Your task to perform on an android device: change the clock display to digital Image 0: 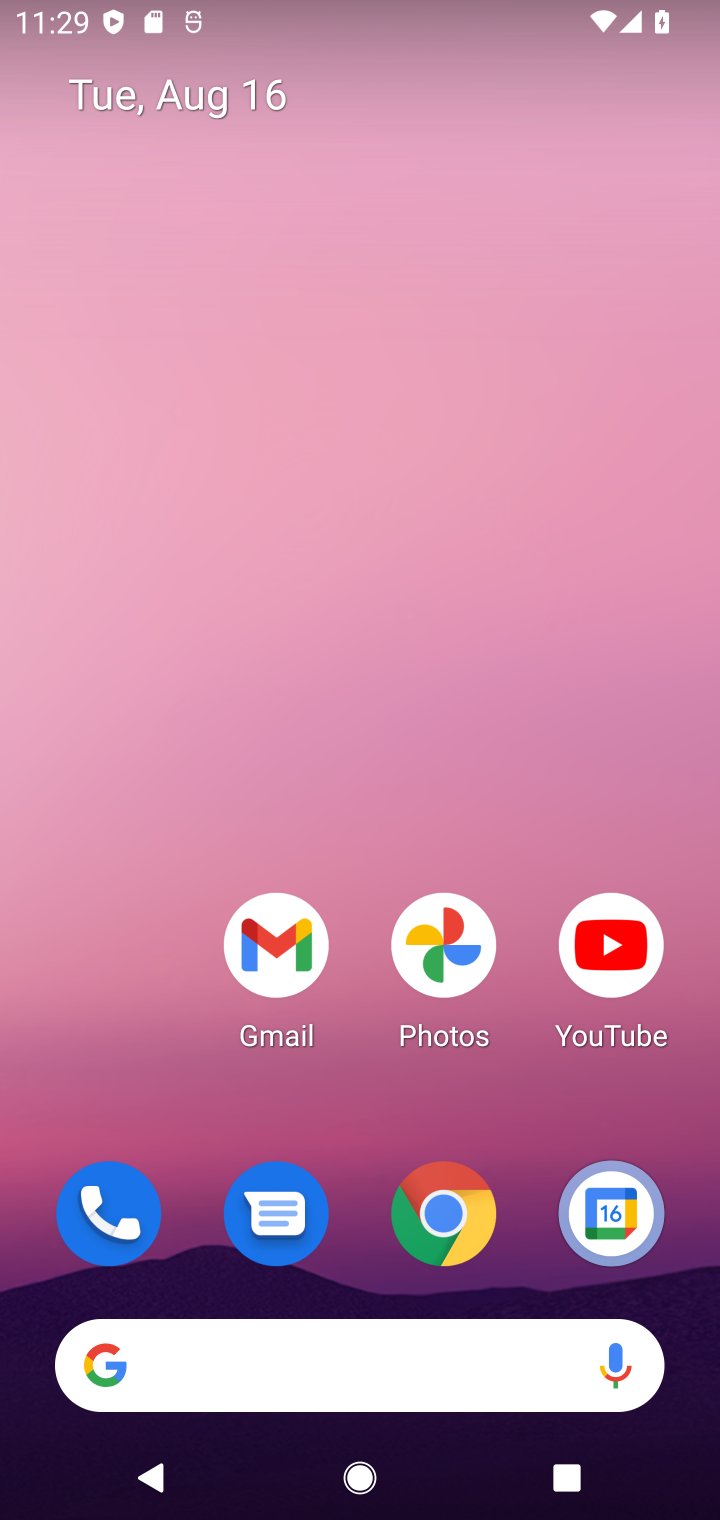
Step 0: drag from (110, 1093) to (279, 2)
Your task to perform on an android device: change the clock display to digital Image 1: 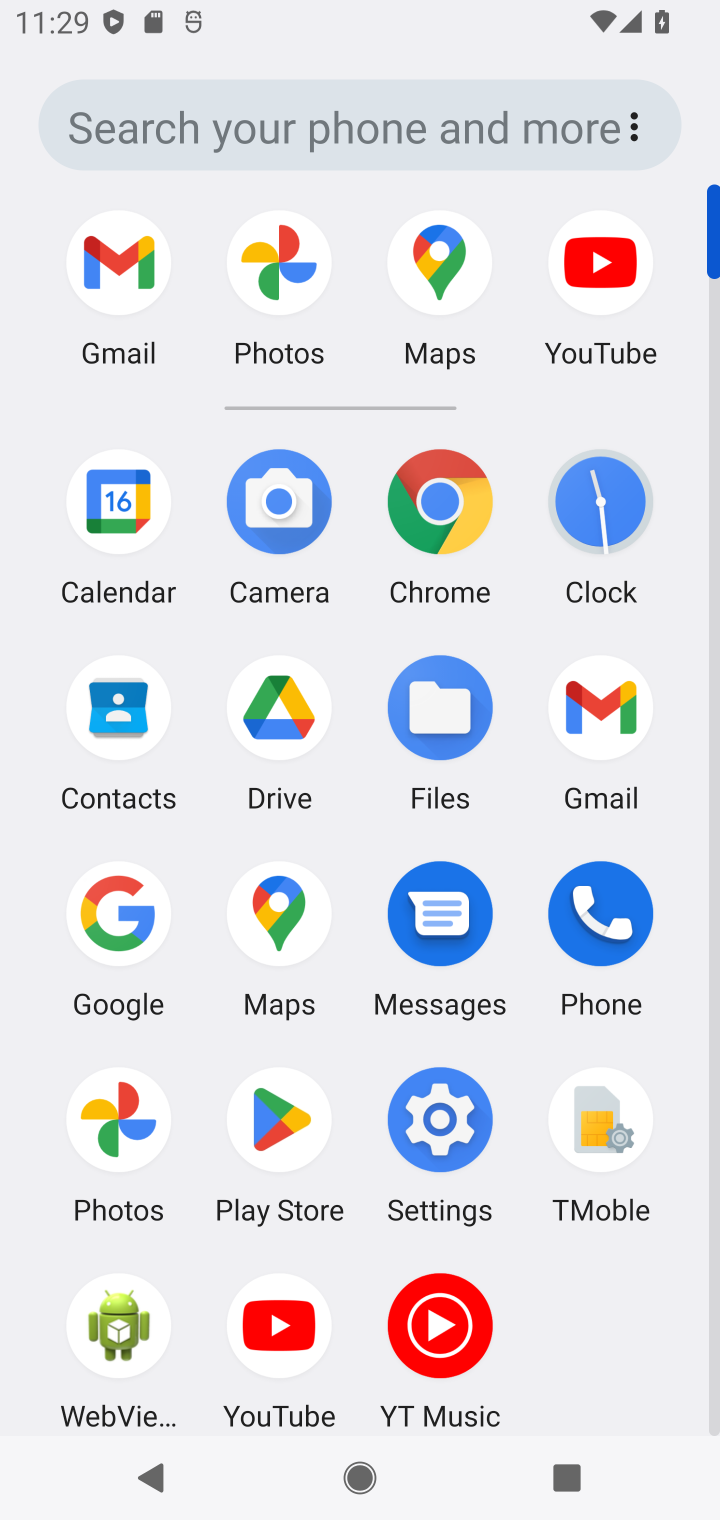
Step 1: click (623, 496)
Your task to perform on an android device: change the clock display to digital Image 2: 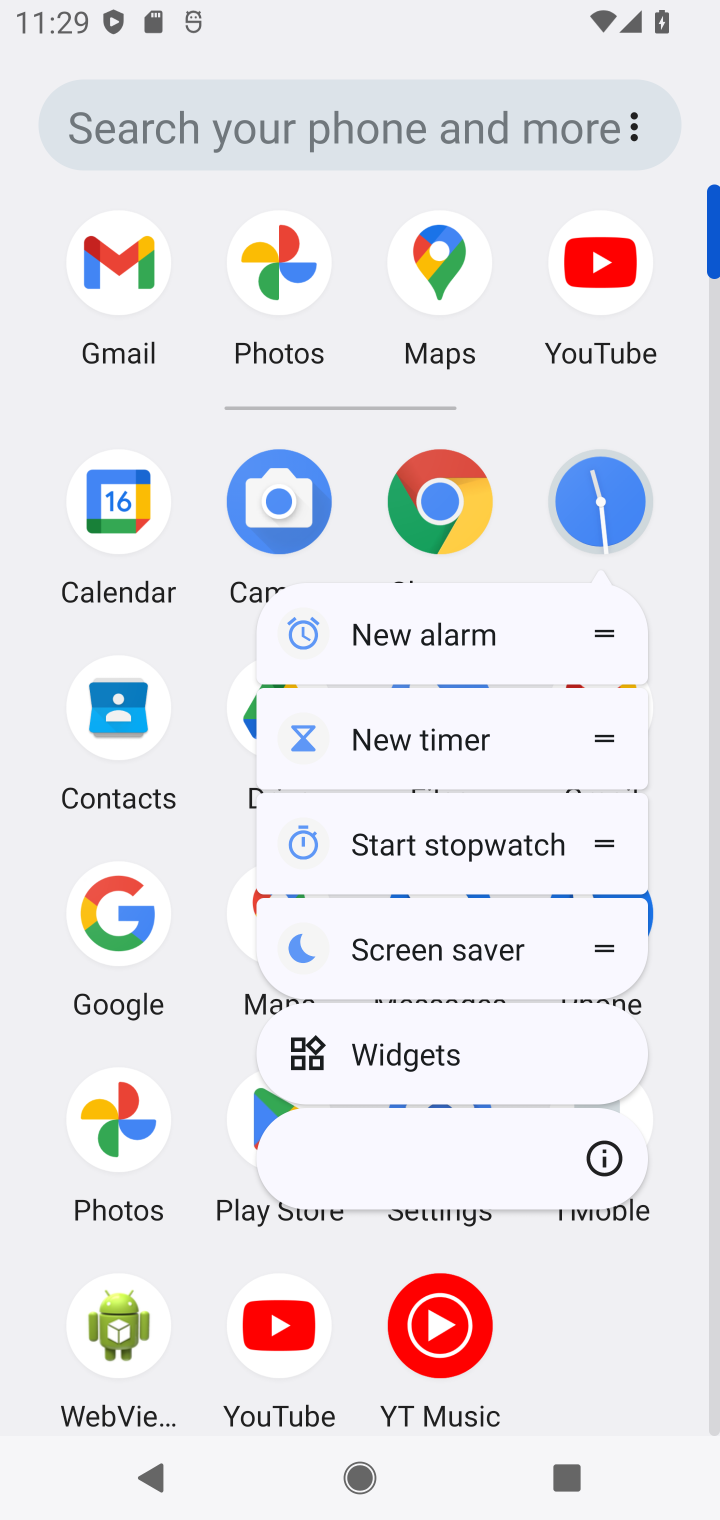
Step 2: click (572, 494)
Your task to perform on an android device: change the clock display to digital Image 3: 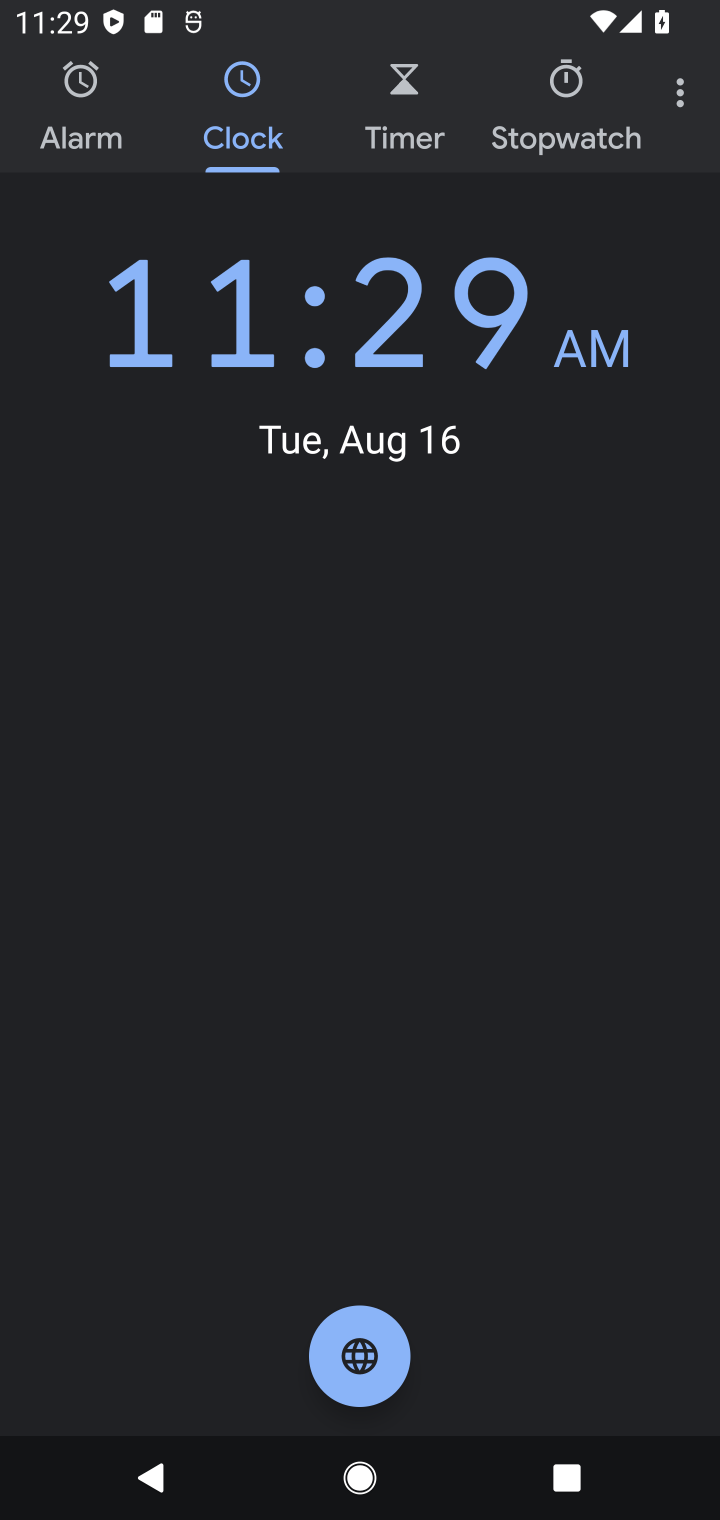
Step 3: click (666, 90)
Your task to perform on an android device: change the clock display to digital Image 4: 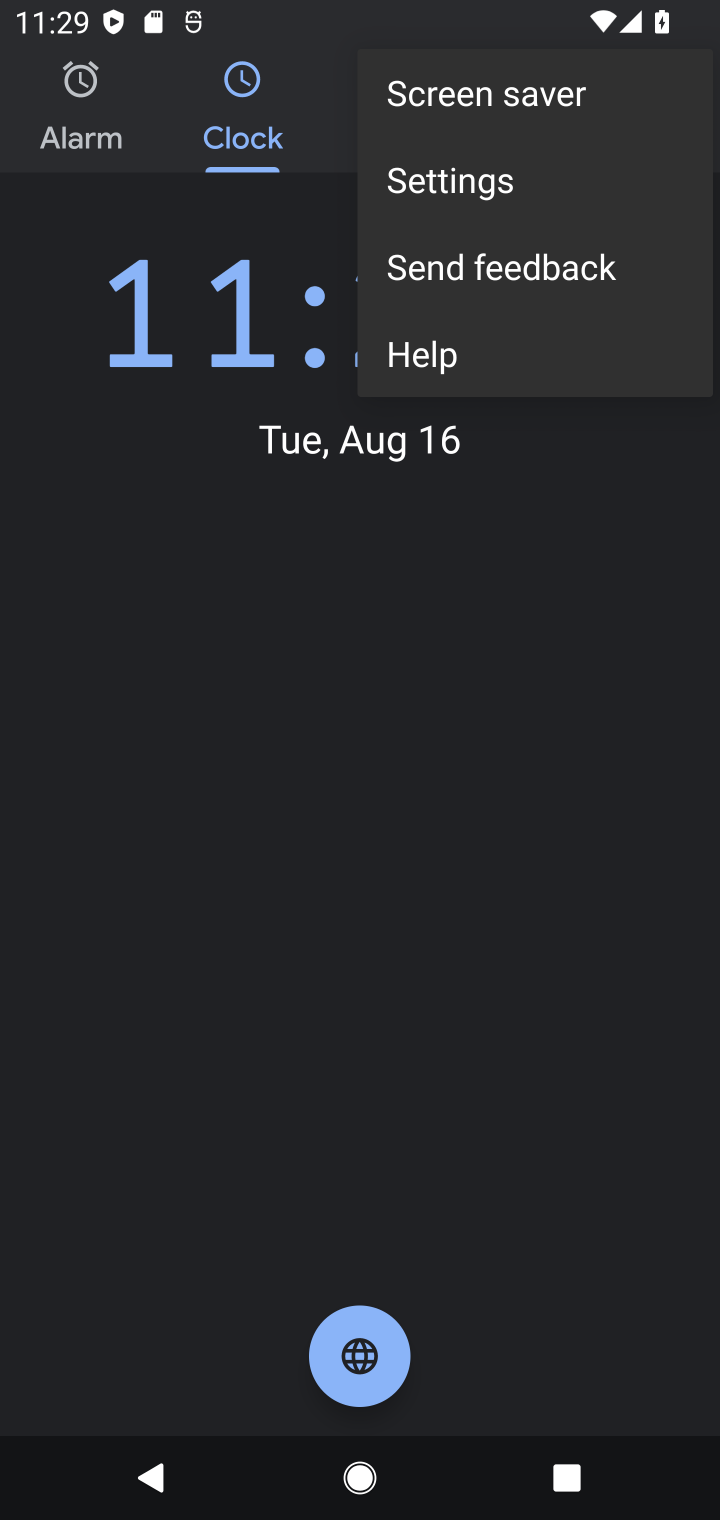
Step 4: click (483, 181)
Your task to perform on an android device: change the clock display to digital Image 5: 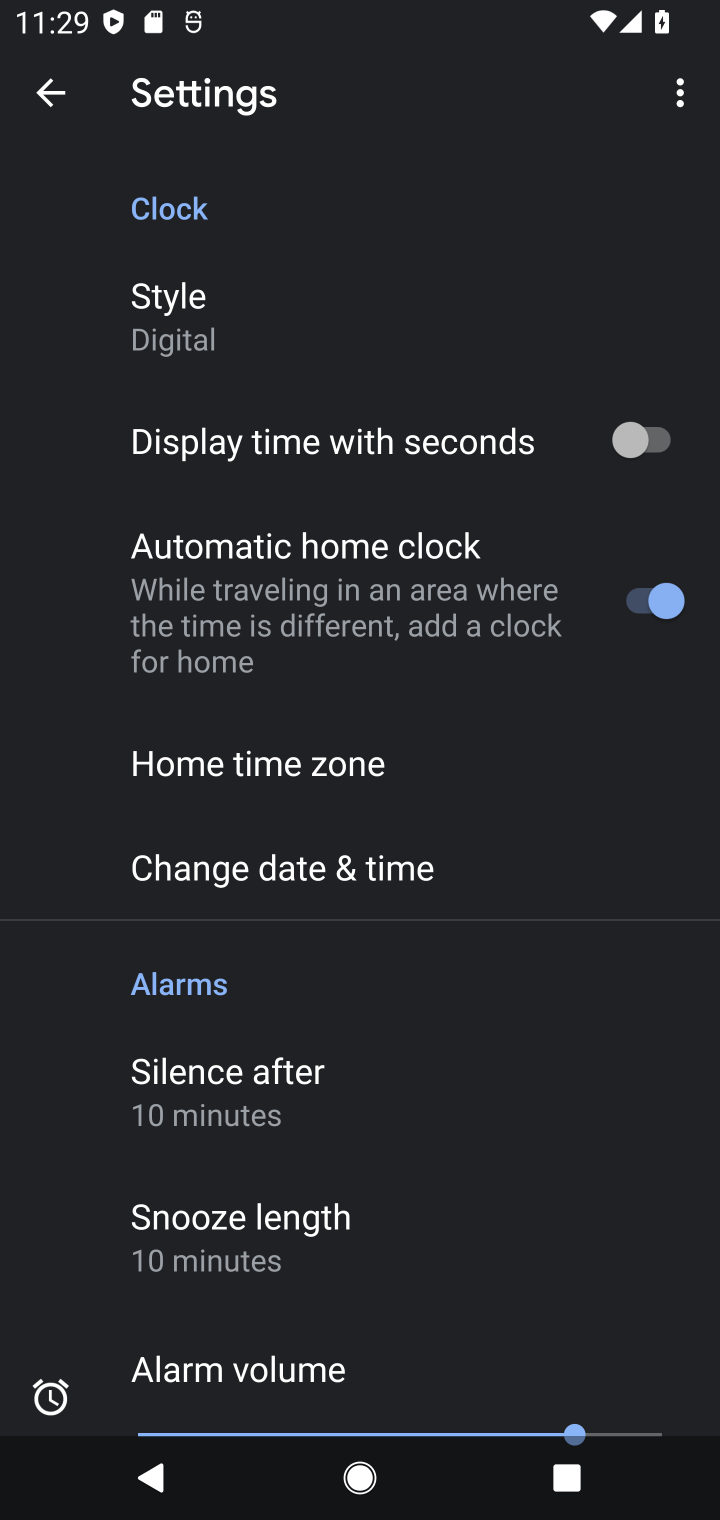
Step 5: task complete